Your task to perform on an android device: Open maps Image 0: 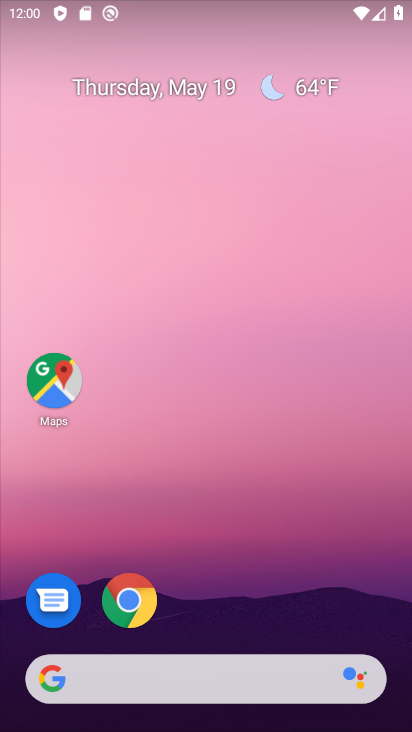
Step 0: click (43, 395)
Your task to perform on an android device: Open maps Image 1: 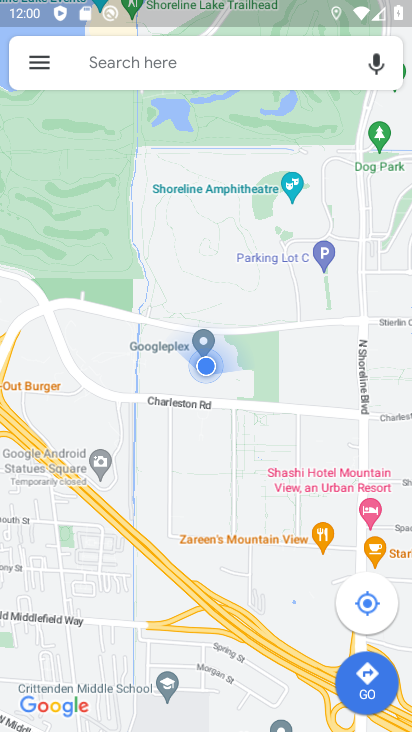
Step 1: task complete